Your task to perform on an android device: Open accessibility settings Image 0: 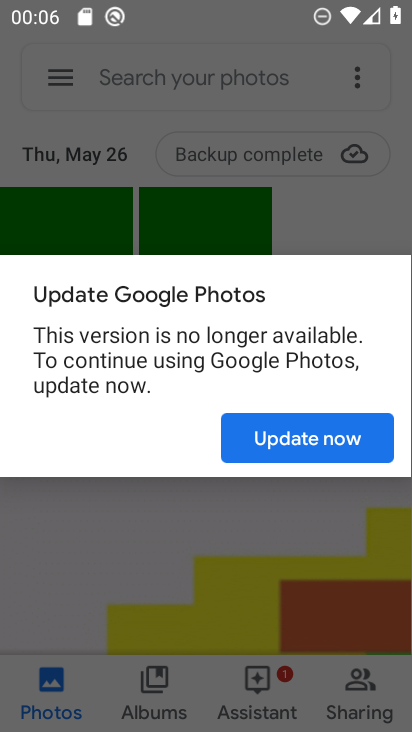
Step 0: press home button
Your task to perform on an android device: Open accessibility settings Image 1: 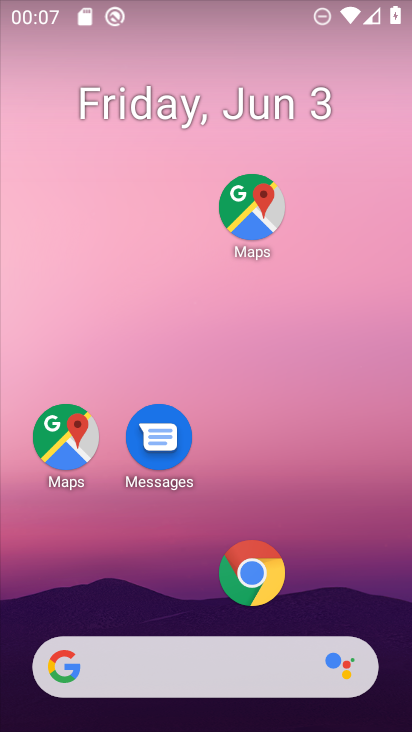
Step 1: drag from (334, 573) to (274, 81)
Your task to perform on an android device: Open accessibility settings Image 2: 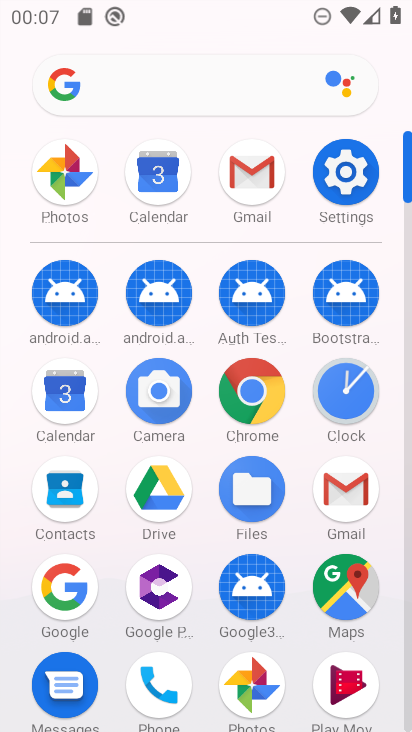
Step 2: click (338, 169)
Your task to perform on an android device: Open accessibility settings Image 3: 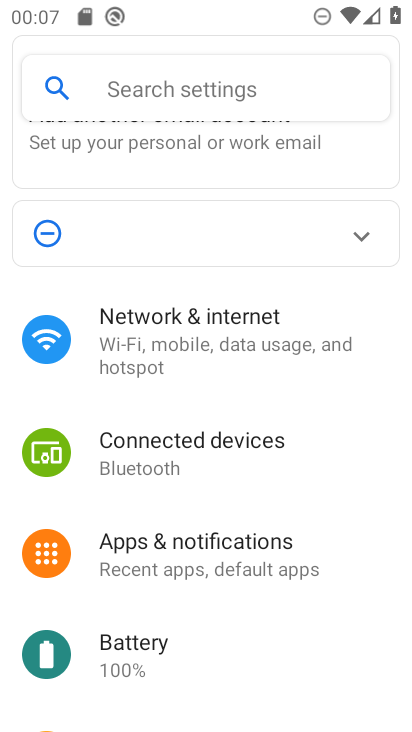
Step 3: drag from (300, 583) to (274, 227)
Your task to perform on an android device: Open accessibility settings Image 4: 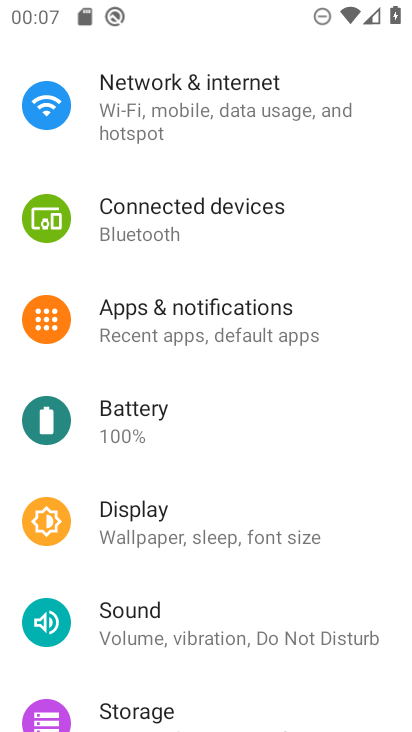
Step 4: drag from (209, 638) to (218, 318)
Your task to perform on an android device: Open accessibility settings Image 5: 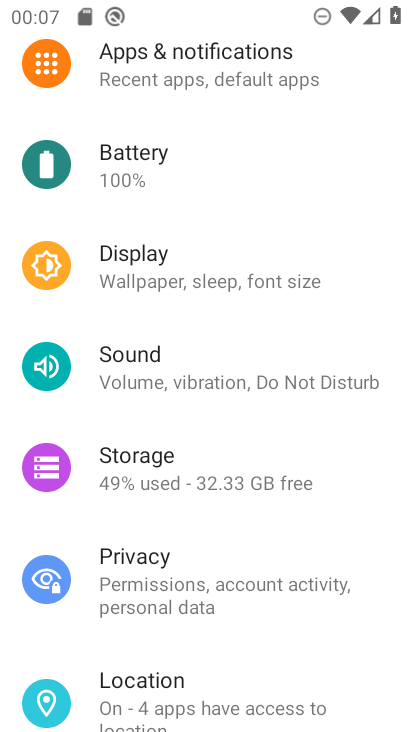
Step 5: drag from (260, 662) to (255, 138)
Your task to perform on an android device: Open accessibility settings Image 6: 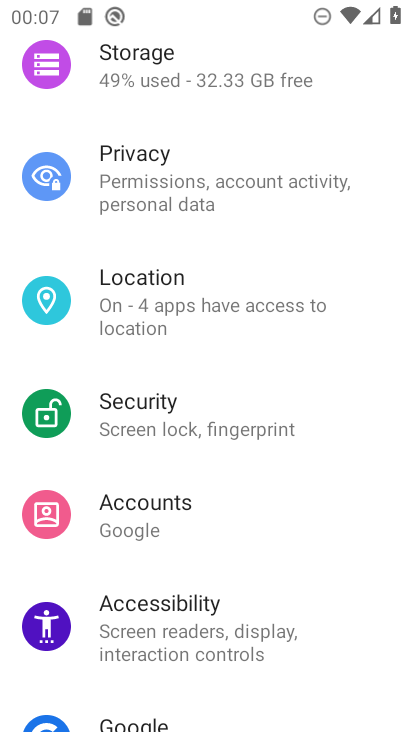
Step 6: click (203, 625)
Your task to perform on an android device: Open accessibility settings Image 7: 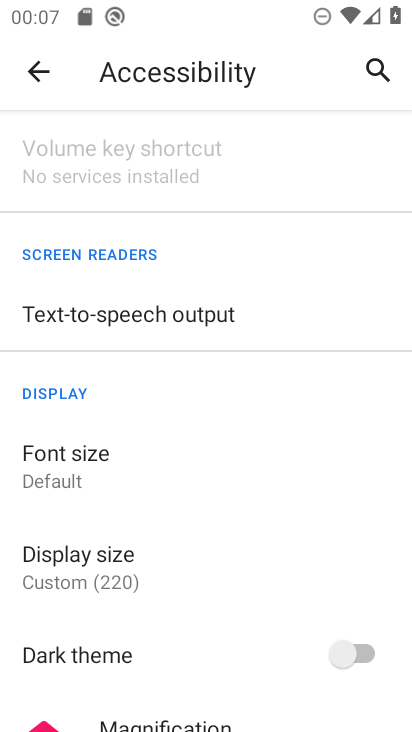
Step 7: task complete